Your task to perform on an android device: turn on showing notifications on the lock screen Image 0: 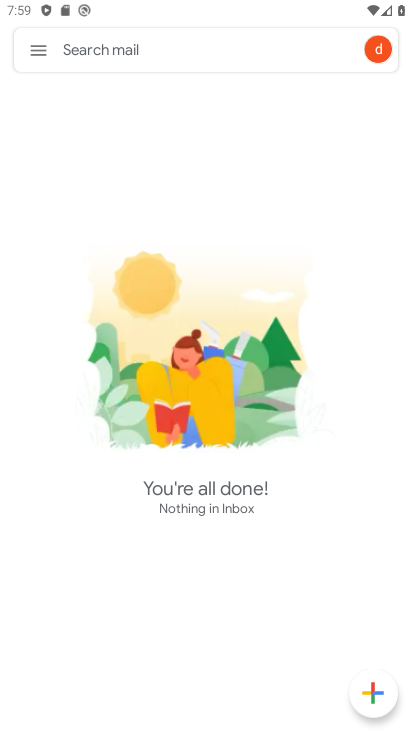
Step 0: press home button
Your task to perform on an android device: turn on showing notifications on the lock screen Image 1: 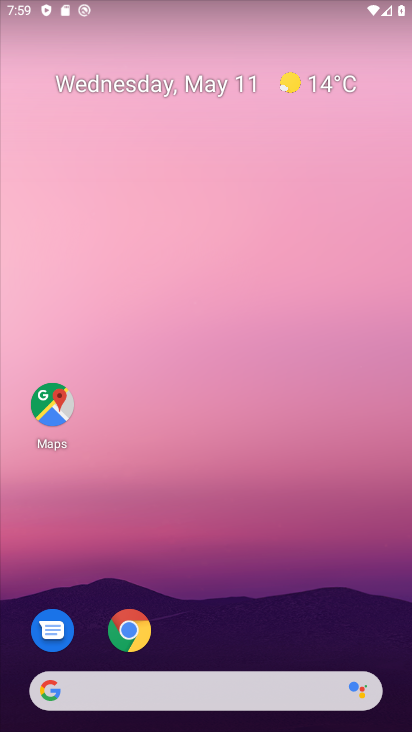
Step 1: drag from (218, 651) to (3, 136)
Your task to perform on an android device: turn on showing notifications on the lock screen Image 2: 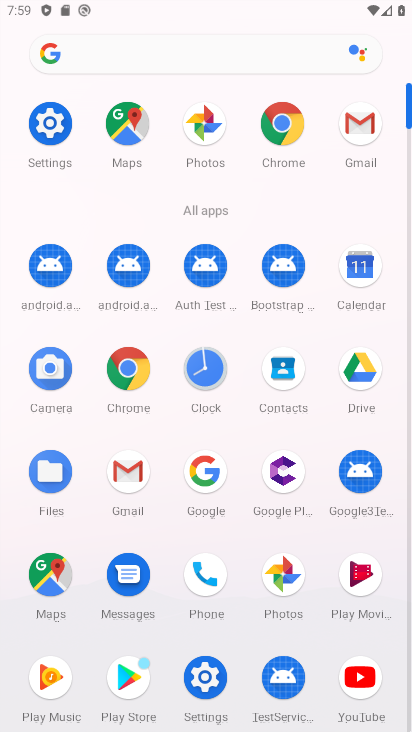
Step 2: click (49, 132)
Your task to perform on an android device: turn on showing notifications on the lock screen Image 3: 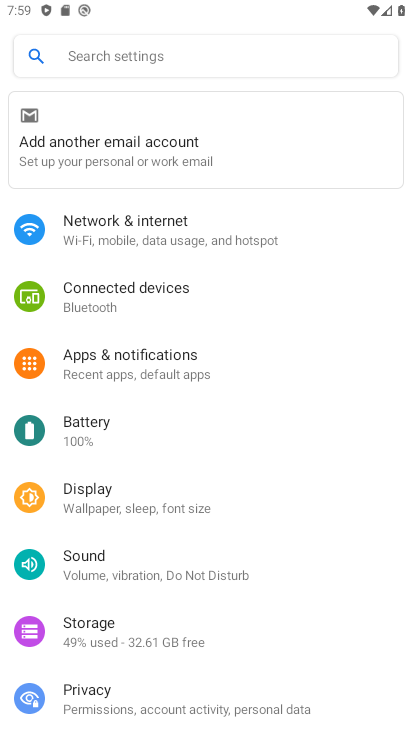
Step 3: click (121, 350)
Your task to perform on an android device: turn on showing notifications on the lock screen Image 4: 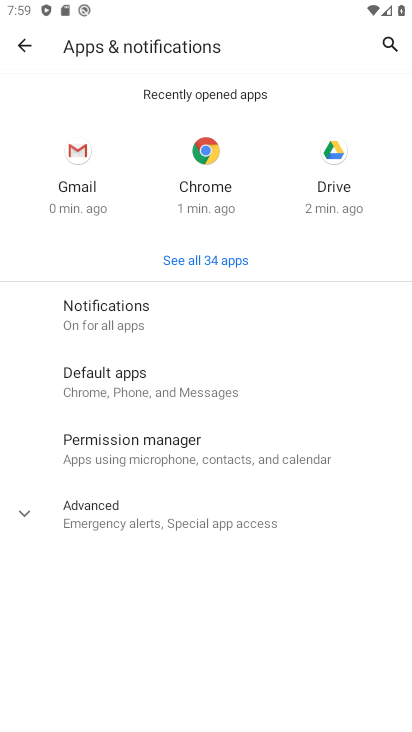
Step 4: click (126, 308)
Your task to perform on an android device: turn on showing notifications on the lock screen Image 5: 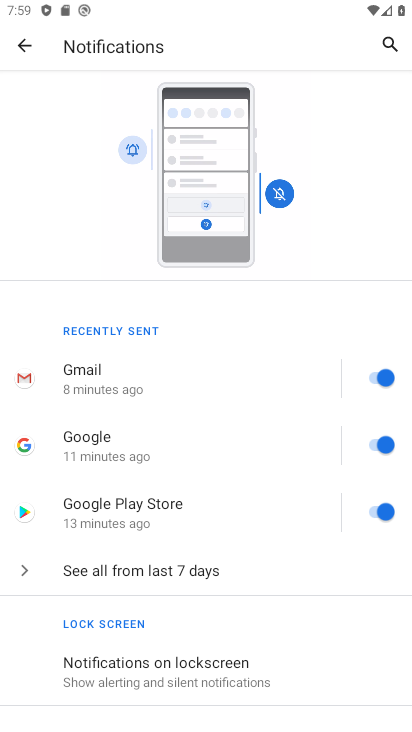
Step 5: click (192, 669)
Your task to perform on an android device: turn on showing notifications on the lock screen Image 6: 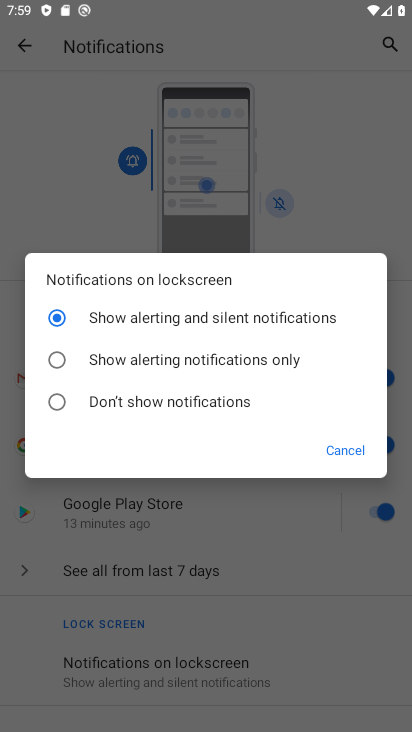
Step 6: click (64, 322)
Your task to perform on an android device: turn on showing notifications on the lock screen Image 7: 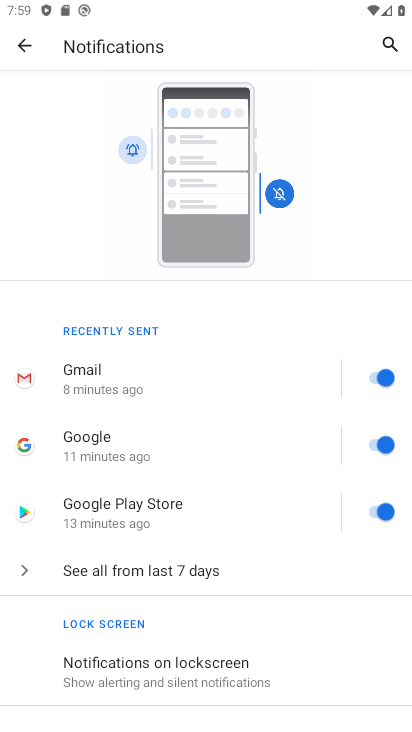
Step 7: task complete